Your task to perform on an android device: Do I have any events today? Image 0: 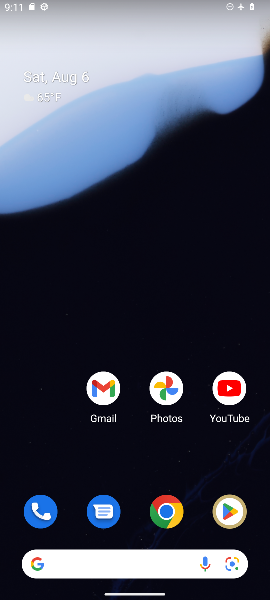
Step 0: press home button
Your task to perform on an android device: Do I have any events today? Image 1: 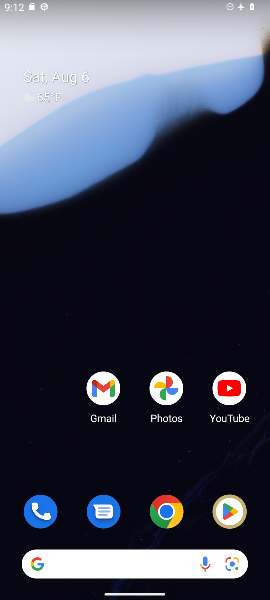
Step 1: drag from (220, 440) to (127, 23)
Your task to perform on an android device: Do I have any events today? Image 2: 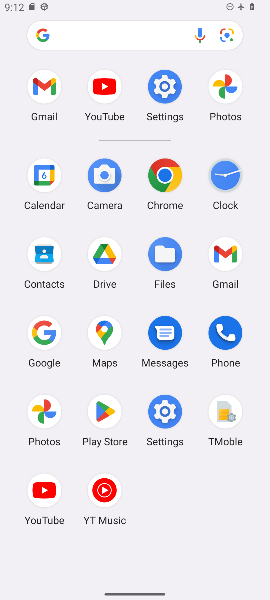
Step 2: click (47, 187)
Your task to perform on an android device: Do I have any events today? Image 3: 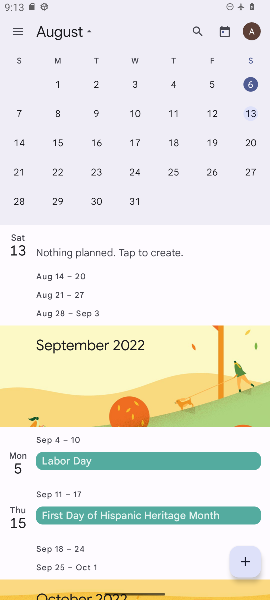
Step 3: click (250, 88)
Your task to perform on an android device: Do I have any events today? Image 4: 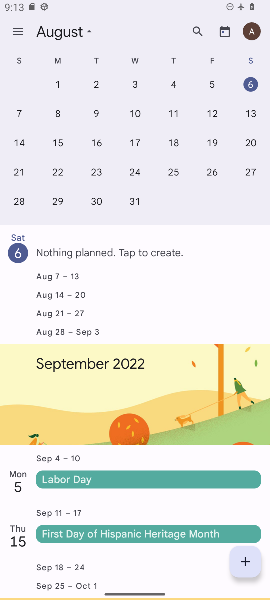
Step 4: task complete